Your task to perform on an android device: remove spam from my inbox in the gmail app Image 0: 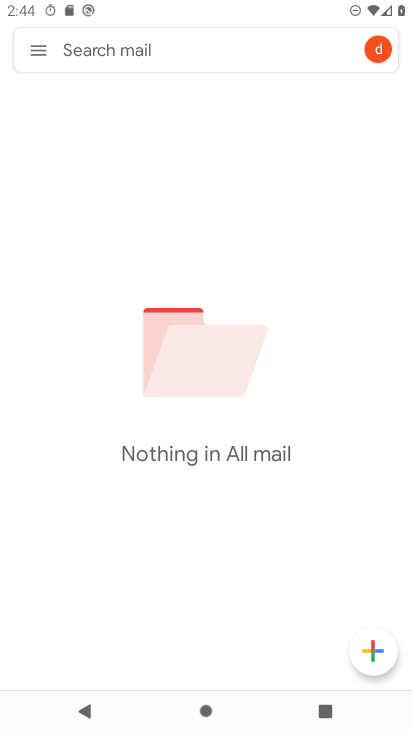
Step 0: press home button
Your task to perform on an android device: remove spam from my inbox in the gmail app Image 1: 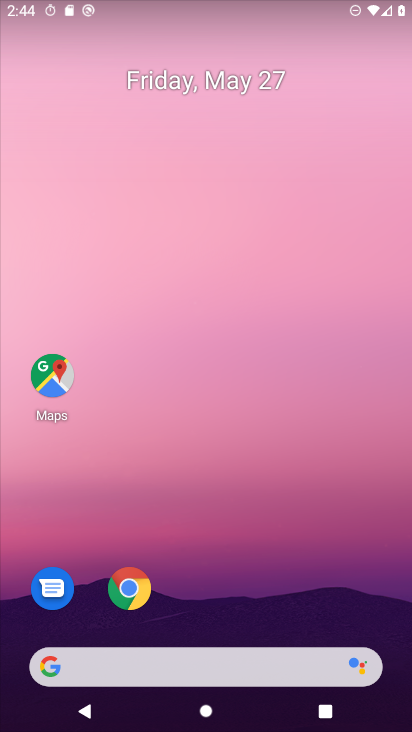
Step 1: drag from (232, 618) to (232, 19)
Your task to perform on an android device: remove spam from my inbox in the gmail app Image 2: 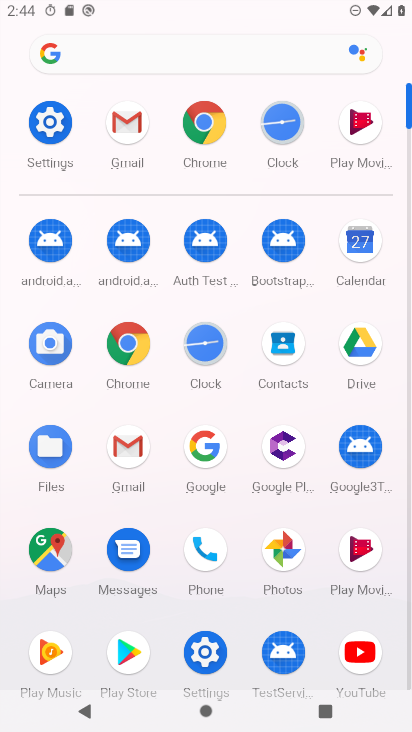
Step 2: click (122, 450)
Your task to perform on an android device: remove spam from my inbox in the gmail app Image 3: 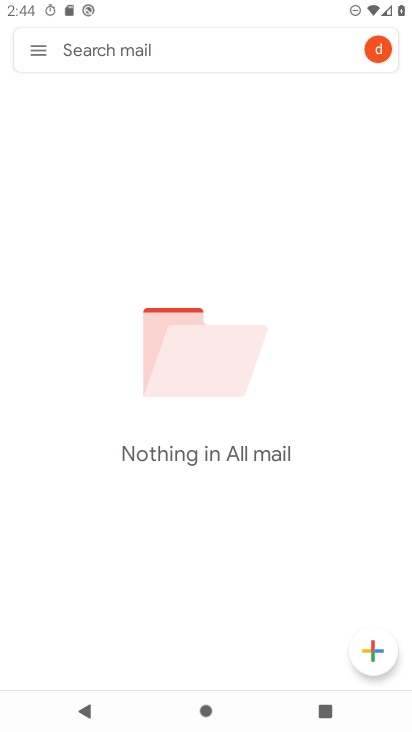
Step 3: click (40, 42)
Your task to perform on an android device: remove spam from my inbox in the gmail app Image 4: 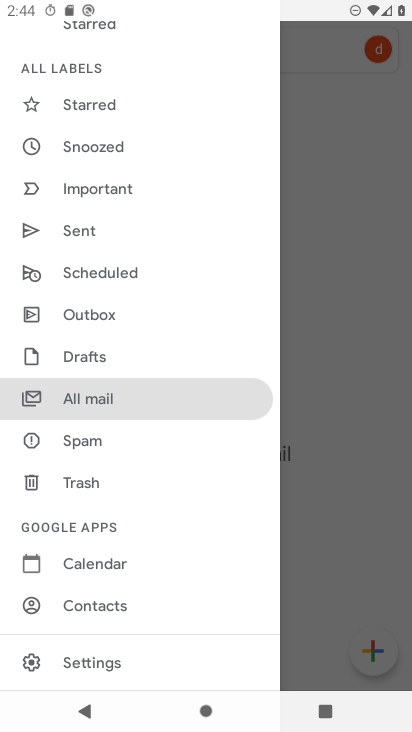
Step 4: click (92, 446)
Your task to perform on an android device: remove spam from my inbox in the gmail app Image 5: 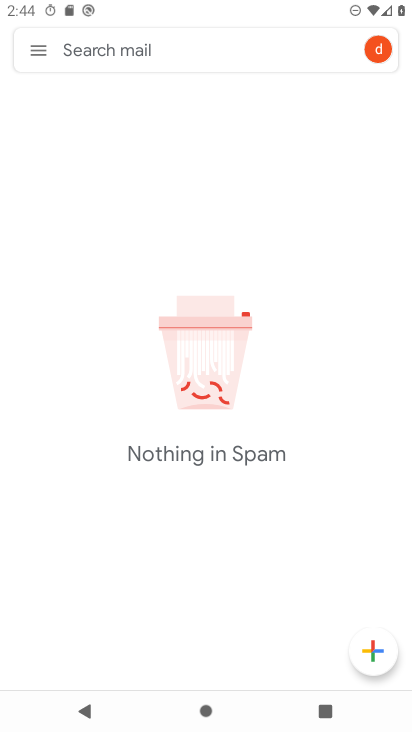
Step 5: task complete